Your task to perform on an android device: What is the recent news? Image 0: 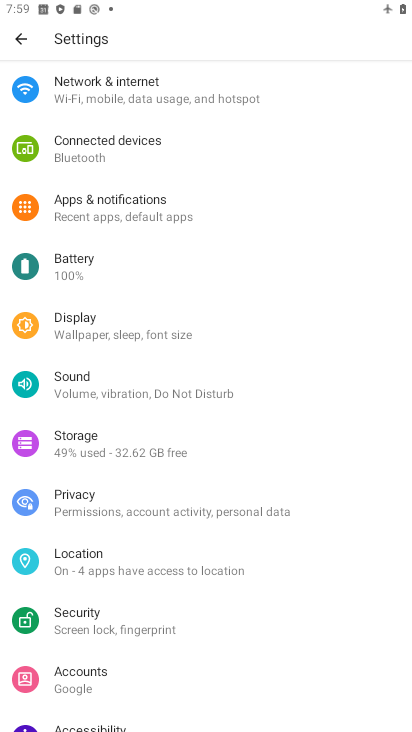
Step 0: press back button
Your task to perform on an android device: What is the recent news? Image 1: 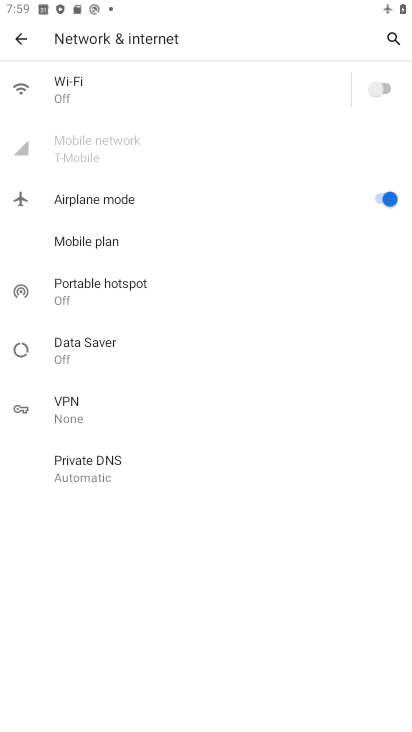
Step 1: press home button
Your task to perform on an android device: What is the recent news? Image 2: 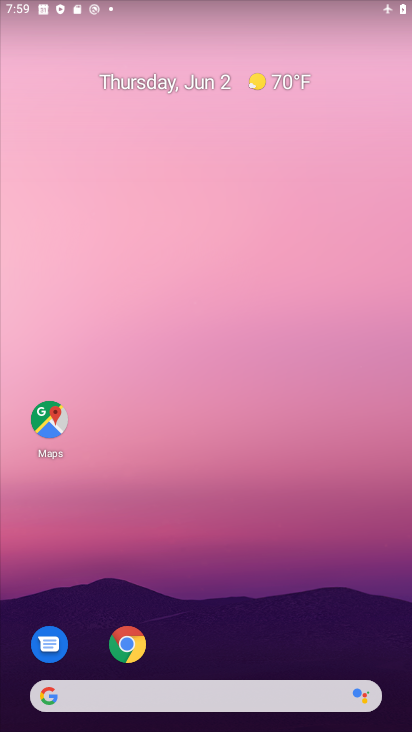
Step 2: drag from (222, 581) to (177, 4)
Your task to perform on an android device: What is the recent news? Image 3: 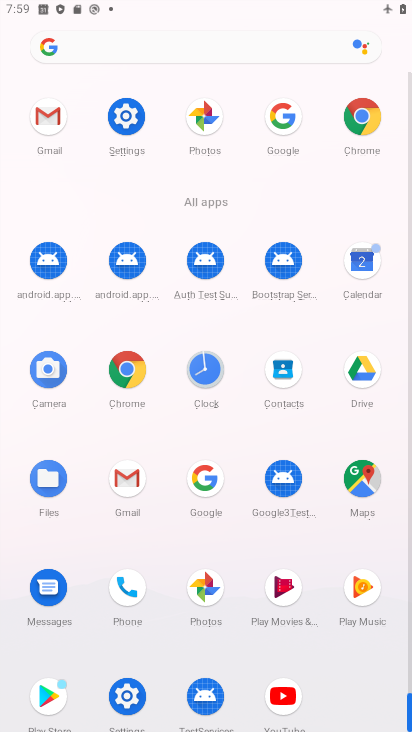
Step 3: click (127, 367)
Your task to perform on an android device: What is the recent news? Image 4: 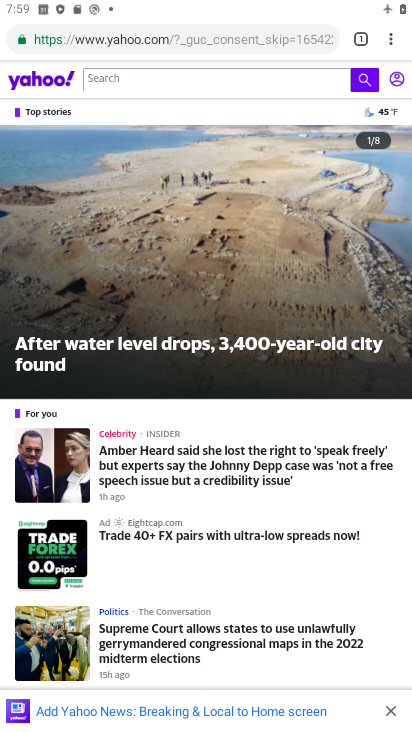
Step 4: click (163, 32)
Your task to perform on an android device: What is the recent news? Image 5: 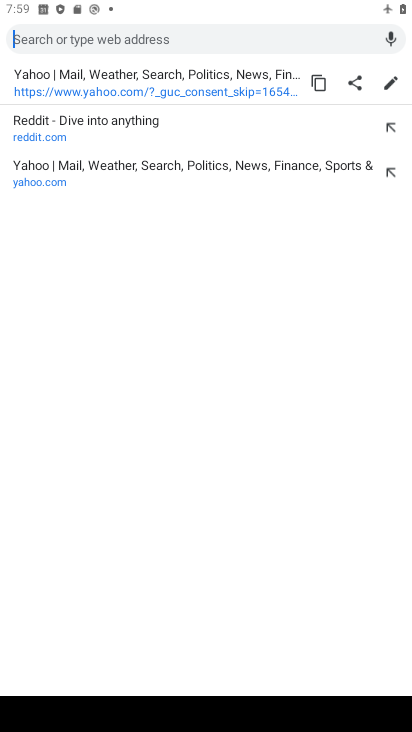
Step 5: type "What is the recent news?"
Your task to perform on an android device: What is the recent news? Image 6: 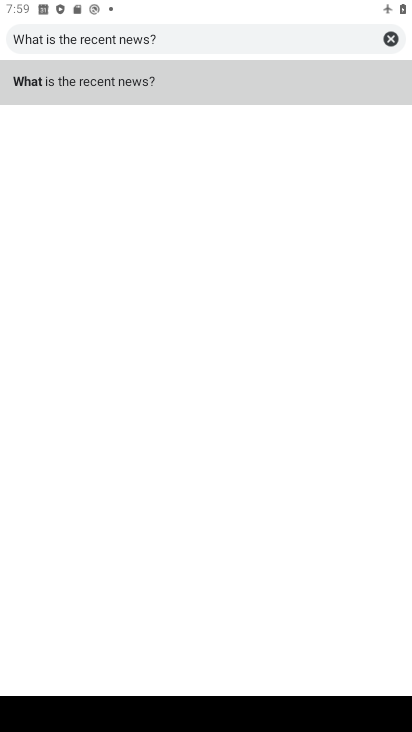
Step 6: click (142, 77)
Your task to perform on an android device: What is the recent news? Image 7: 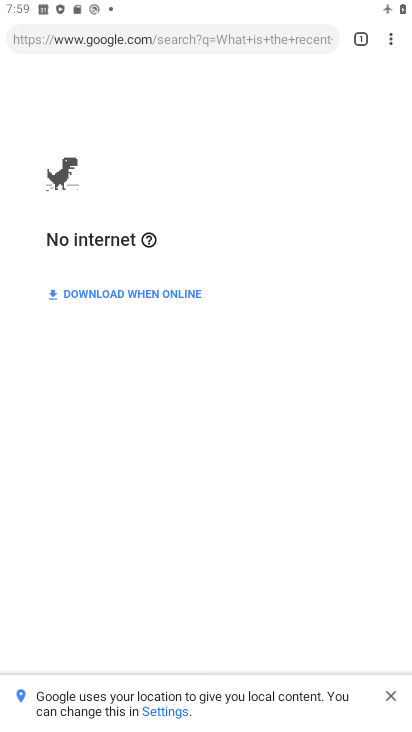
Step 7: task complete